Your task to perform on an android device: Go to ESPN.com Image 0: 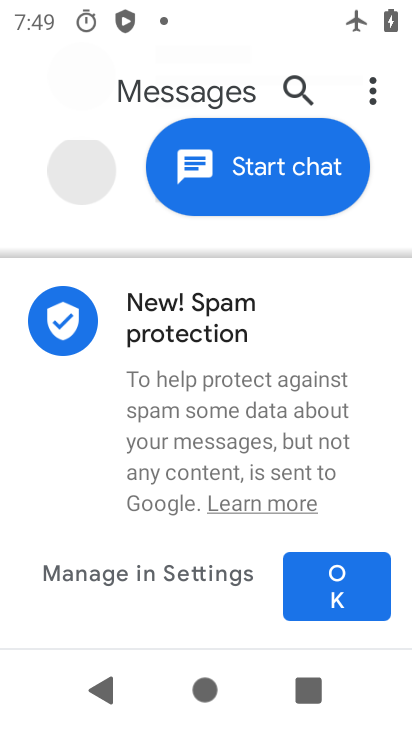
Step 0: press home button
Your task to perform on an android device: Go to ESPN.com Image 1: 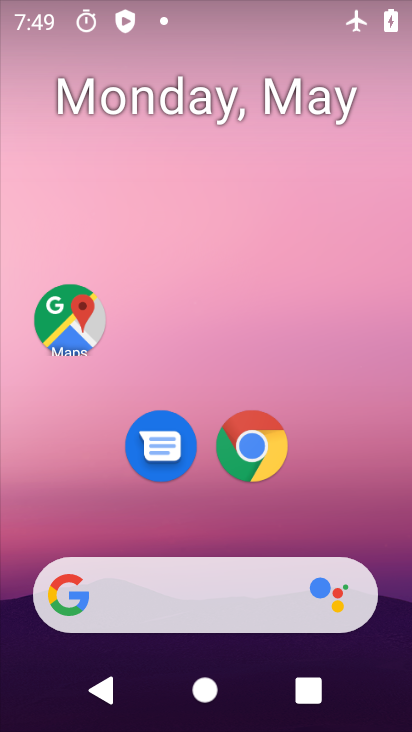
Step 1: click (248, 465)
Your task to perform on an android device: Go to ESPN.com Image 2: 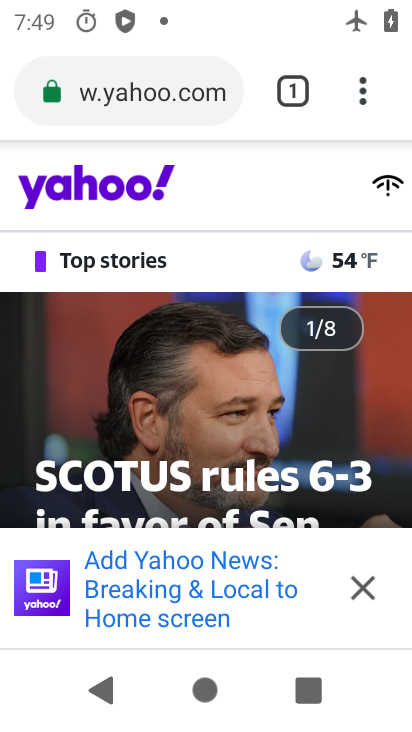
Step 2: click (110, 97)
Your task to perform on an android device: Go to ESPN.com Image 3: 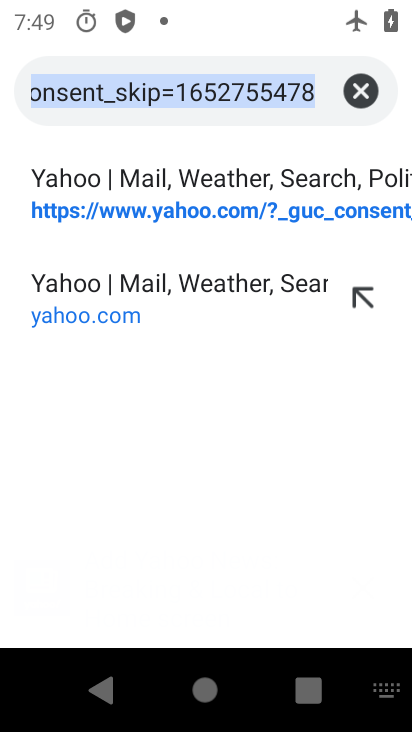
Step 3: type "espn.com"
Your task to perform on an android device: Go to ESPN.com Image 4: 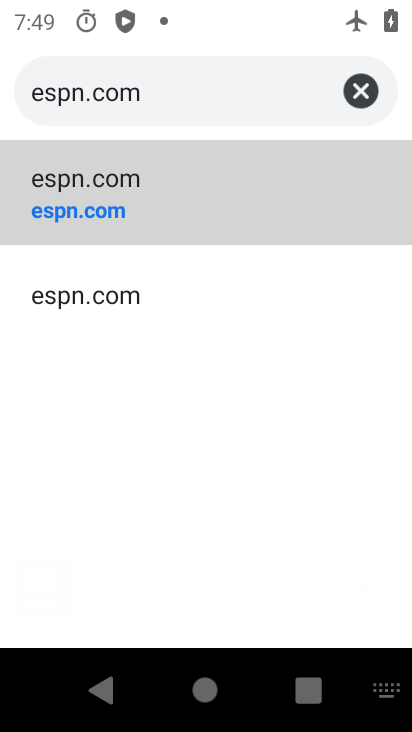
Step 4: click (74, 221)
Your task to perform on an android device: Go to ESPN.com Image 5: 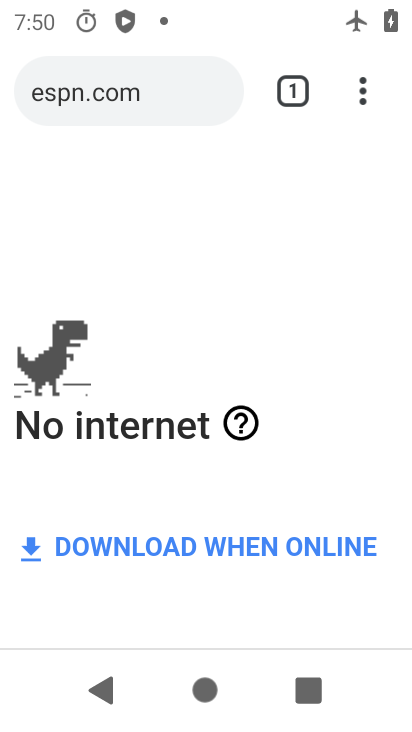
Step 5: task complete